Your task to perform on an android device: uninstall "Google News" Image 0: 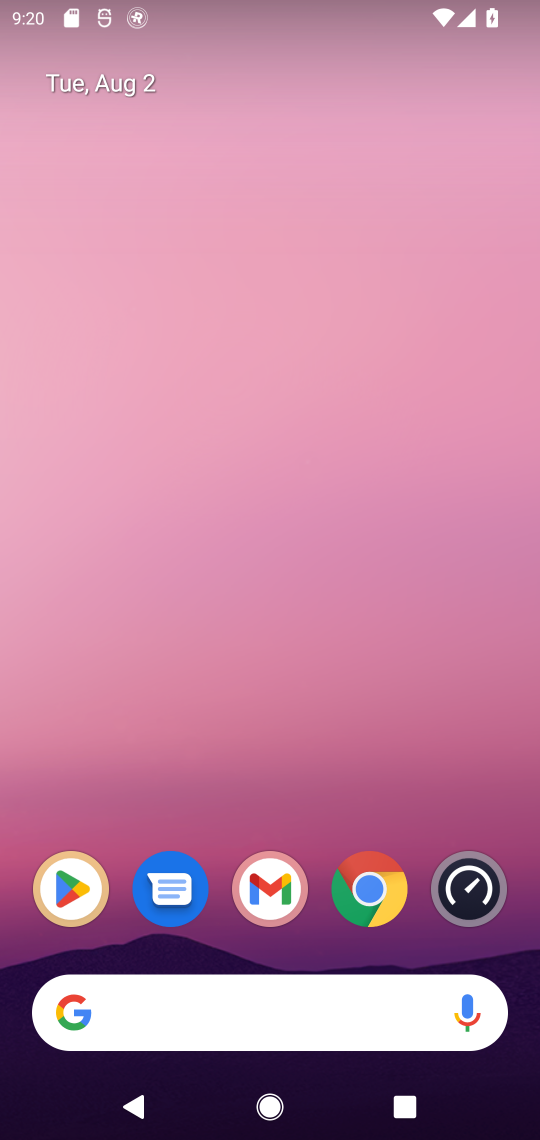
Step 0: click (63, 891)
Your task to perform on an android device: uninstall "Google News" Image 1: 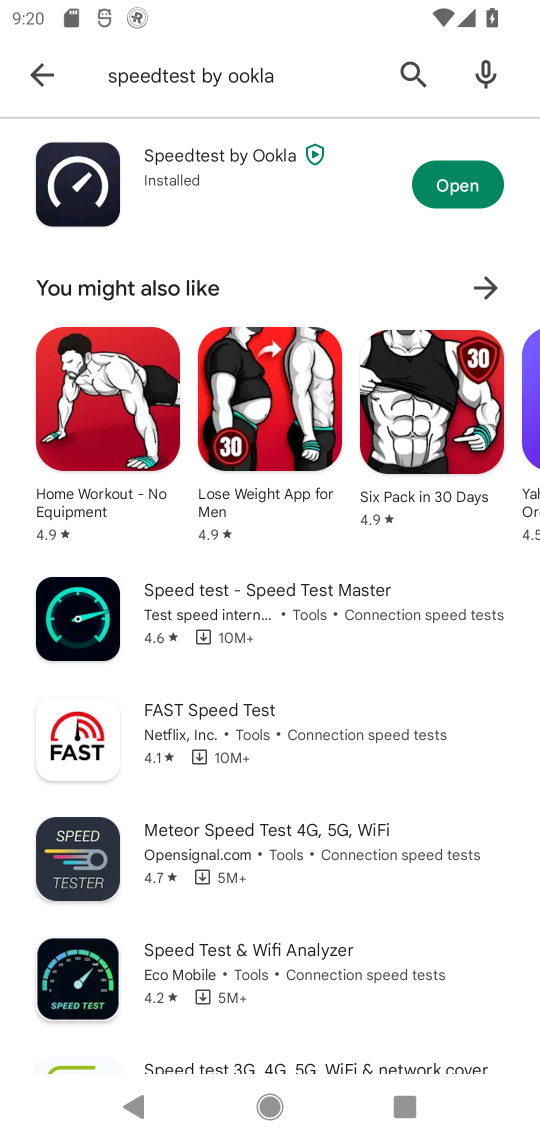
Step 1: press home button
Your task to perform on an android device: uninstall "Google News" Image 2: 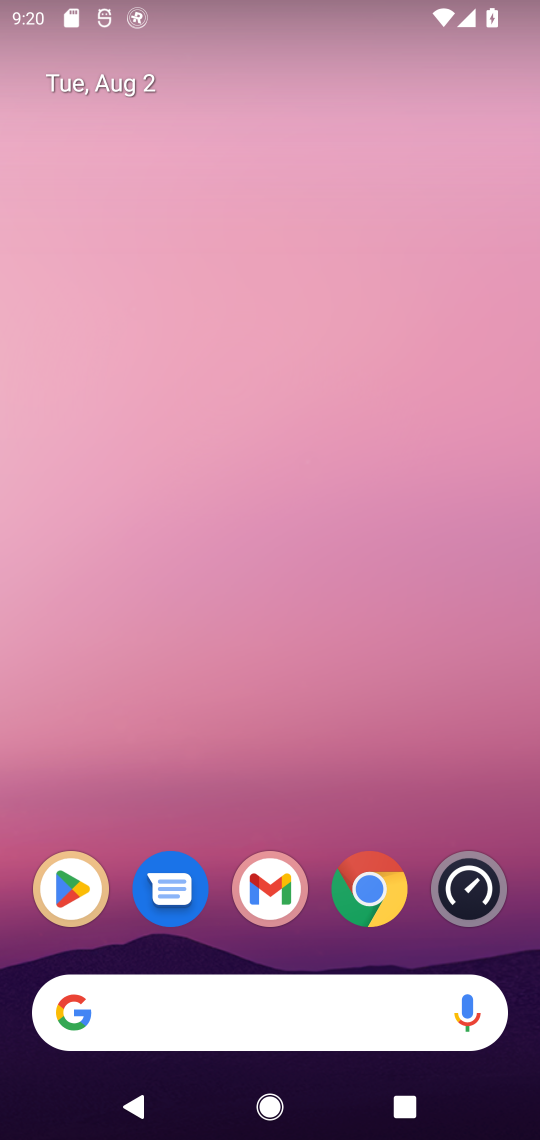
Step 2: click (62, 878)
Your task to perform on an android device: uninstall "Google News" Image 3: 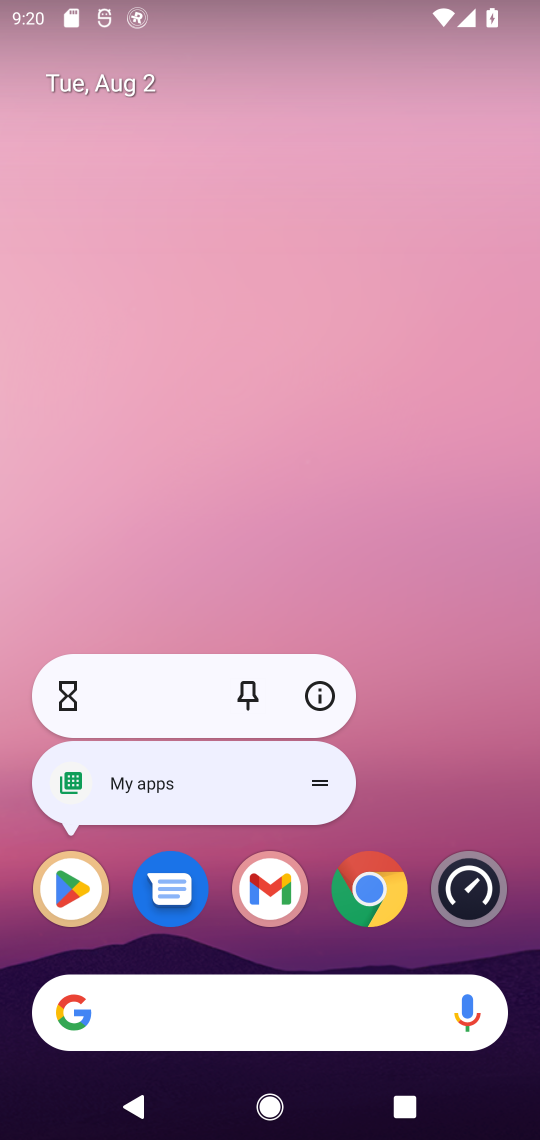
Step 3: click (66, 888)
Your task to perform on an android device: uninstall "Google News" Image 4: 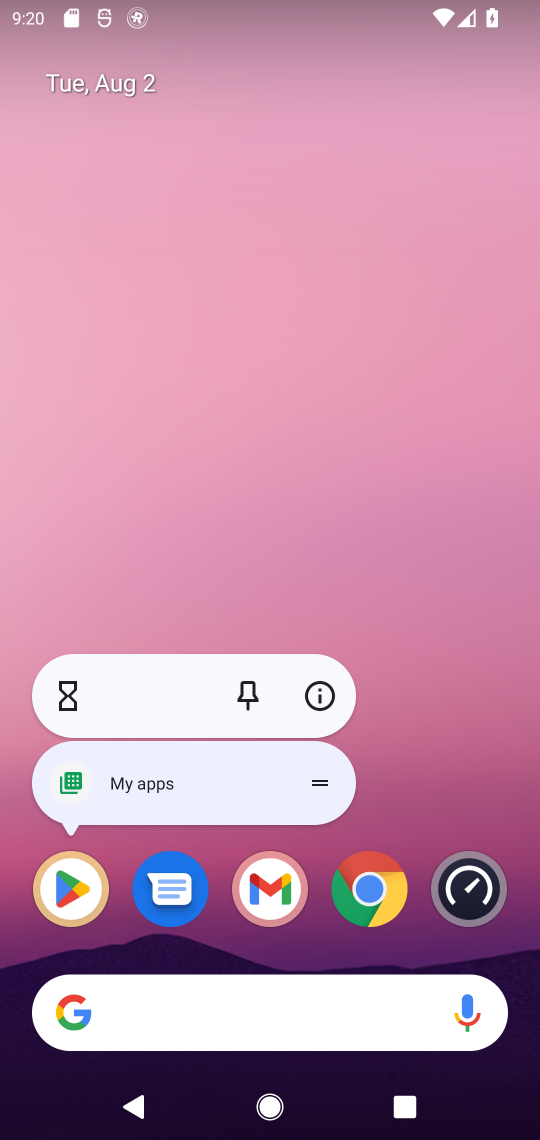
Step 4: click (66, 891)
Your task to perform on an android device: uninstall "Google News" Image 5: 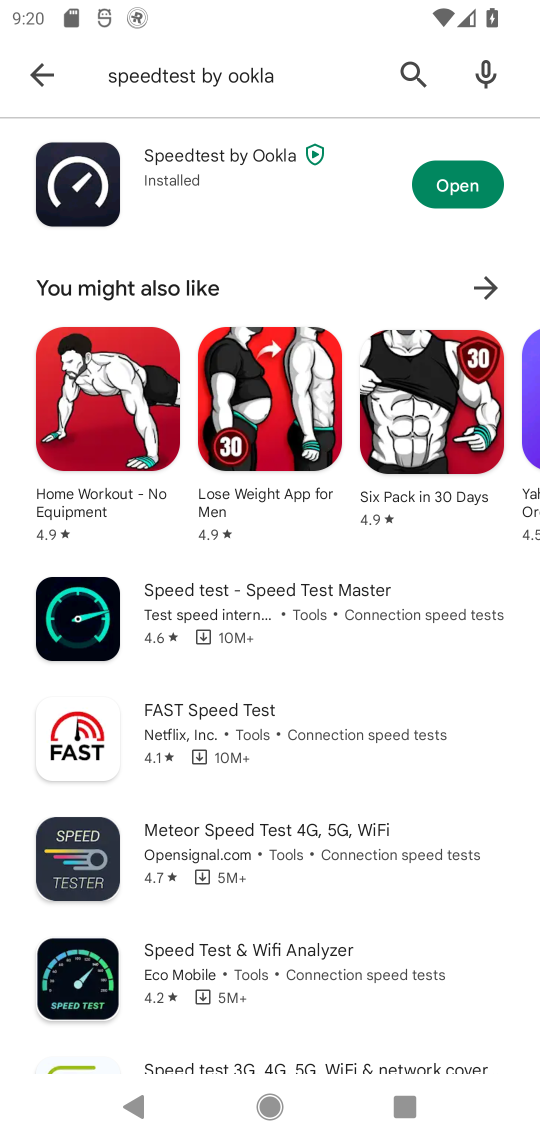
Step 5: click (399, 73)
Your task to perform on an android device: uninstall "Google News" Image 6: 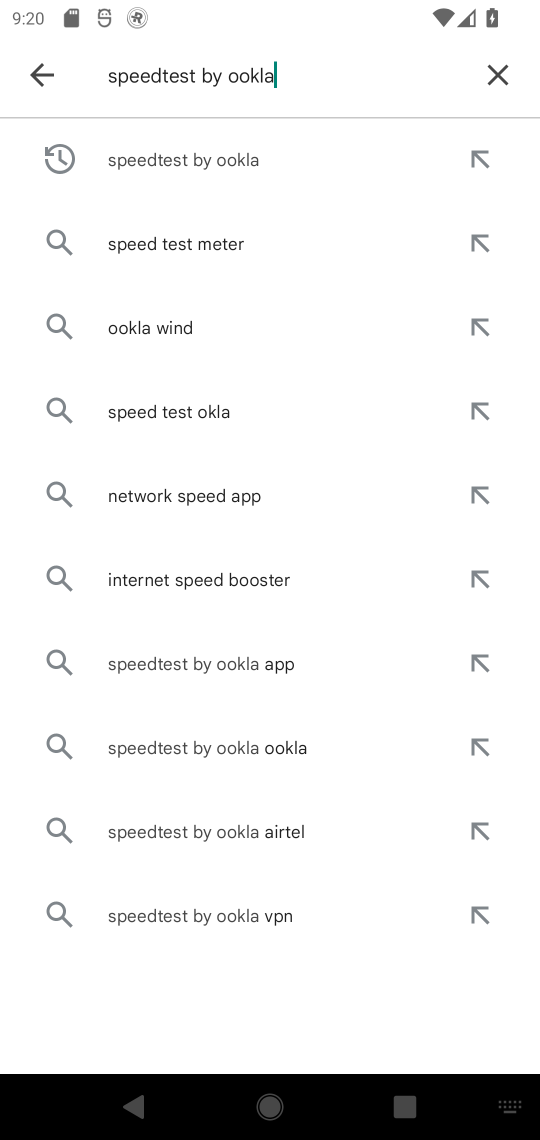
Step 6: click (506, 69)
Your task to perform on an android device: uninstall "Google News" Image 7: 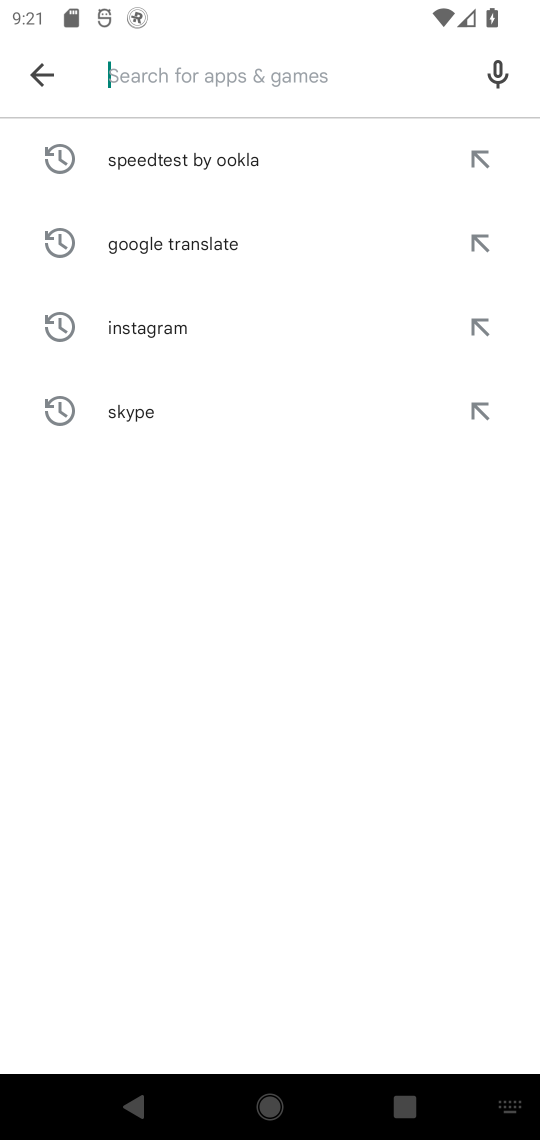
Step 7: type "Google News"
Your task to perform on an android device: uninstall "Google News" Image 8: 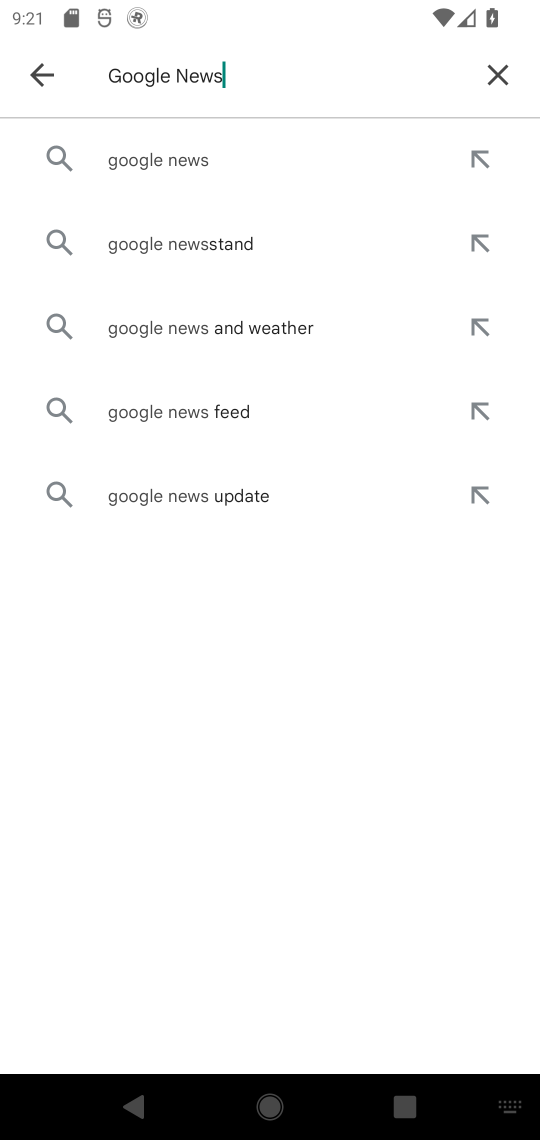
Step 8: click (196, 163)
Your task to perform on an android device: uninstall "Google News" Image 9: 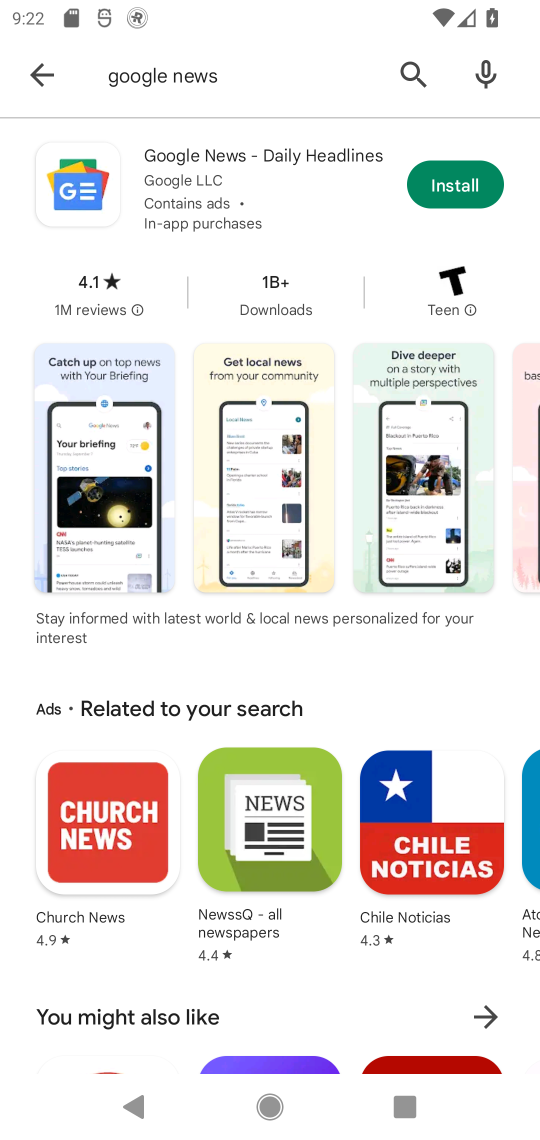
Step 9: task complete